Your task to perform on an android device: Do I have any events today? Image 0: 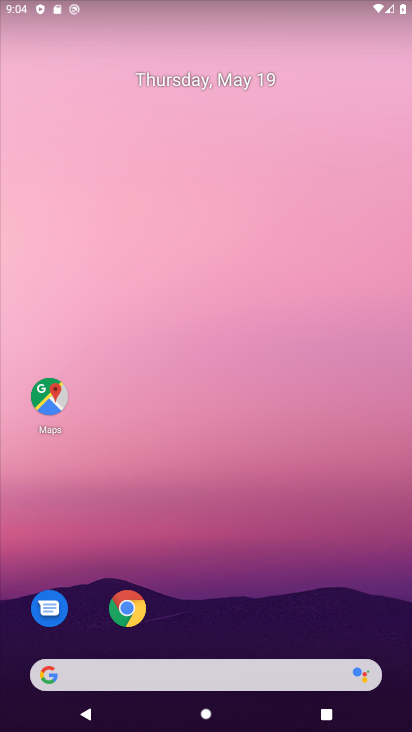
Step 0: drag from (185, 536) to (193, 100)
Your task to perform on an android device: Do I have any events today? Image 1: 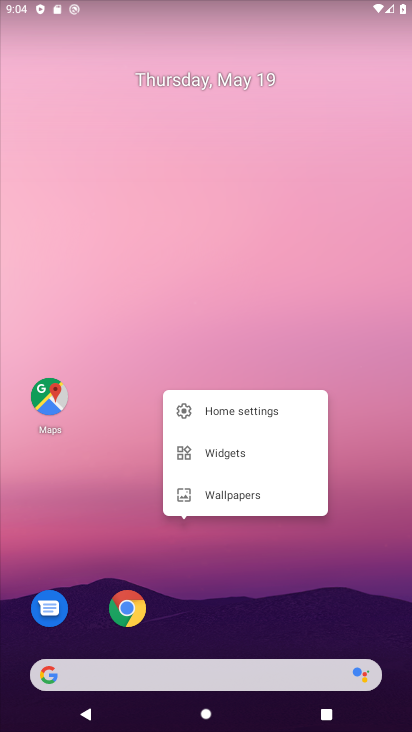
Step 1: drag from (212, 608) to (221, 167)
Your task to perform on an android device: Do I have any events today? Image 2: 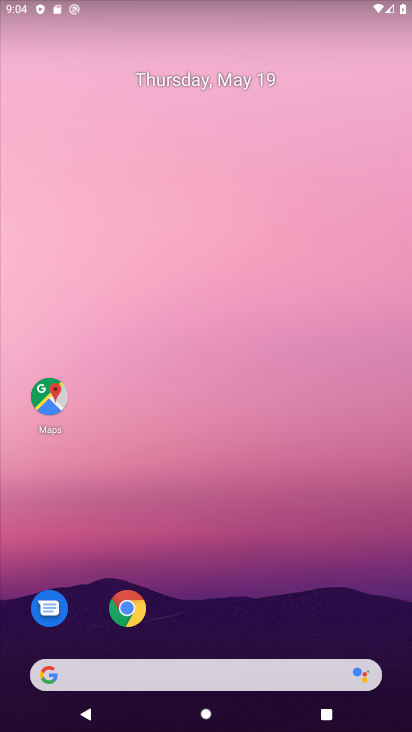
Step 2: drag from (206, 570) to (288, 139)
Your task to perform on an android device: Do I have any events today? Image 3: 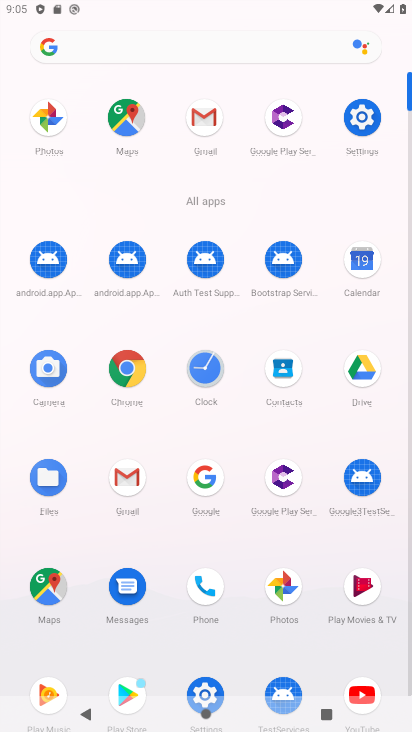
Step 3: click (368, 272)
Your task to perform on an android device: Do I have any events today? Image 4: 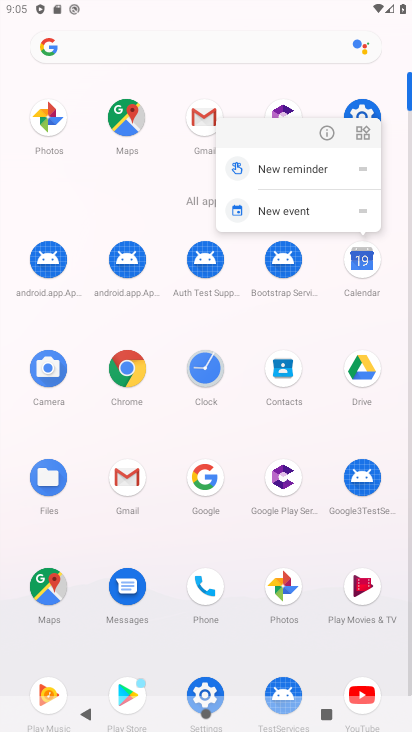
Step 4: click (354, 261)
Your task to perform on an android device: Do I have any events today? Image 5: 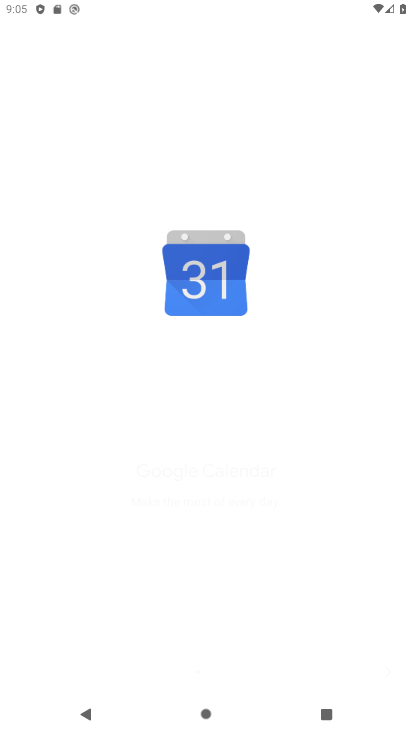
Step 5: click (360, 257)
Your task to perform on an android device: Do I have any events today? Image 6: 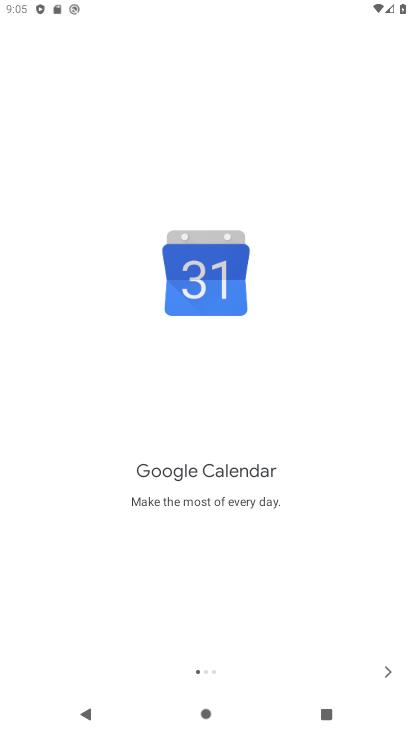
Step 6: click (393, 672)
Your task to perform on an android device: Do I have any events today? Image 7: 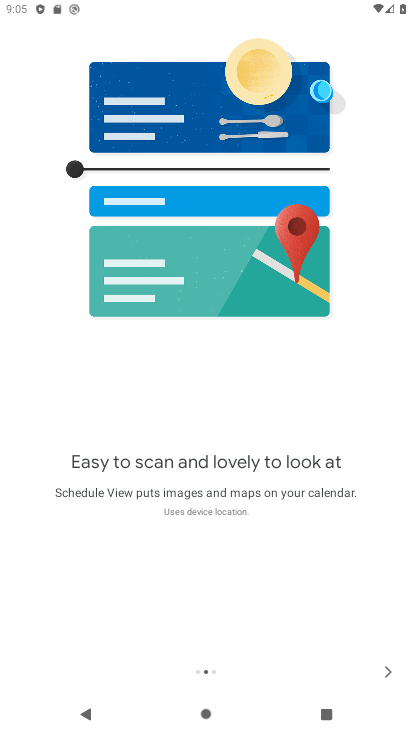
Step 7: click (393, 672)
Your task to perform on an android device: Do I have any events today? Image 8: 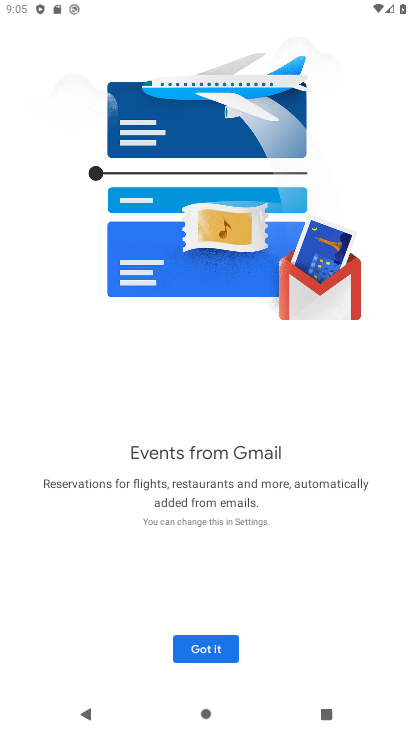
Step 8: click (213, 636)
Your task to perform on an android device: Do I have any events today? Image 9: 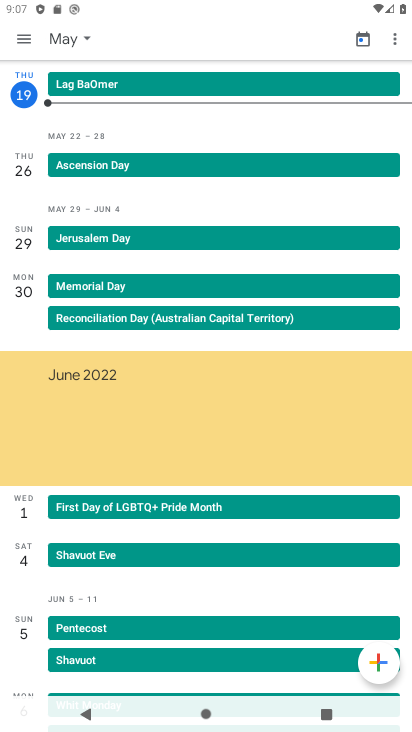
Step 9: click (78, 42)
Your task to perform on an android device: Do I have any events today? Image 10: 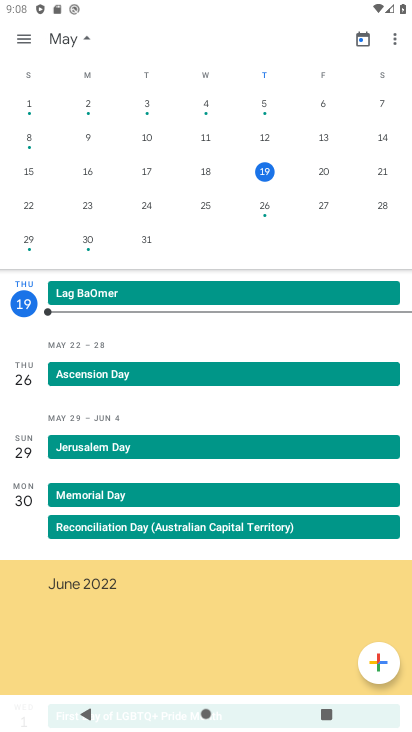
Step 10: click (319, 176)
Your task to perform on an android device: Do I have any events today? Image 11: 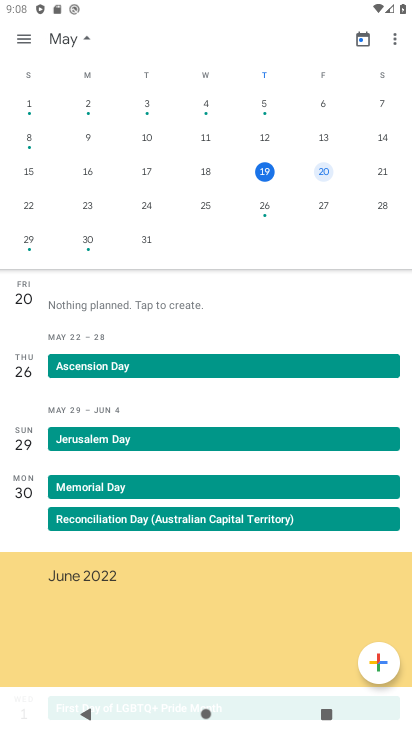
Step 11: task complete